Your task to perform on an android device: open app "Walmart Shopping & Grocery" (install if not already installed) and go to login screen Image 0: 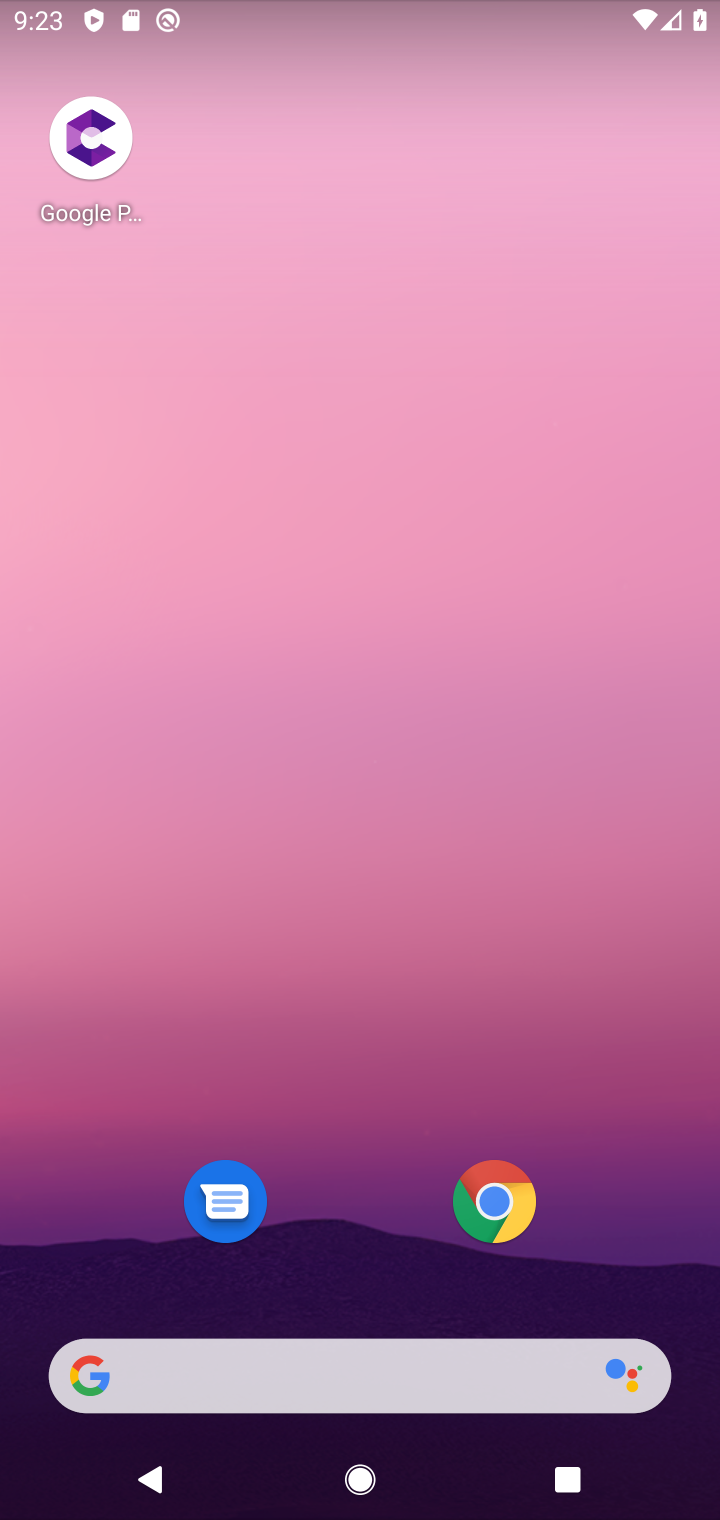
Step 0: drag from (276, 1257) to (498, 419)
Your task to perform on an android device: open app "Walmart Shopping & Grocery" (install if not already installed) and go to login screen Image 1: 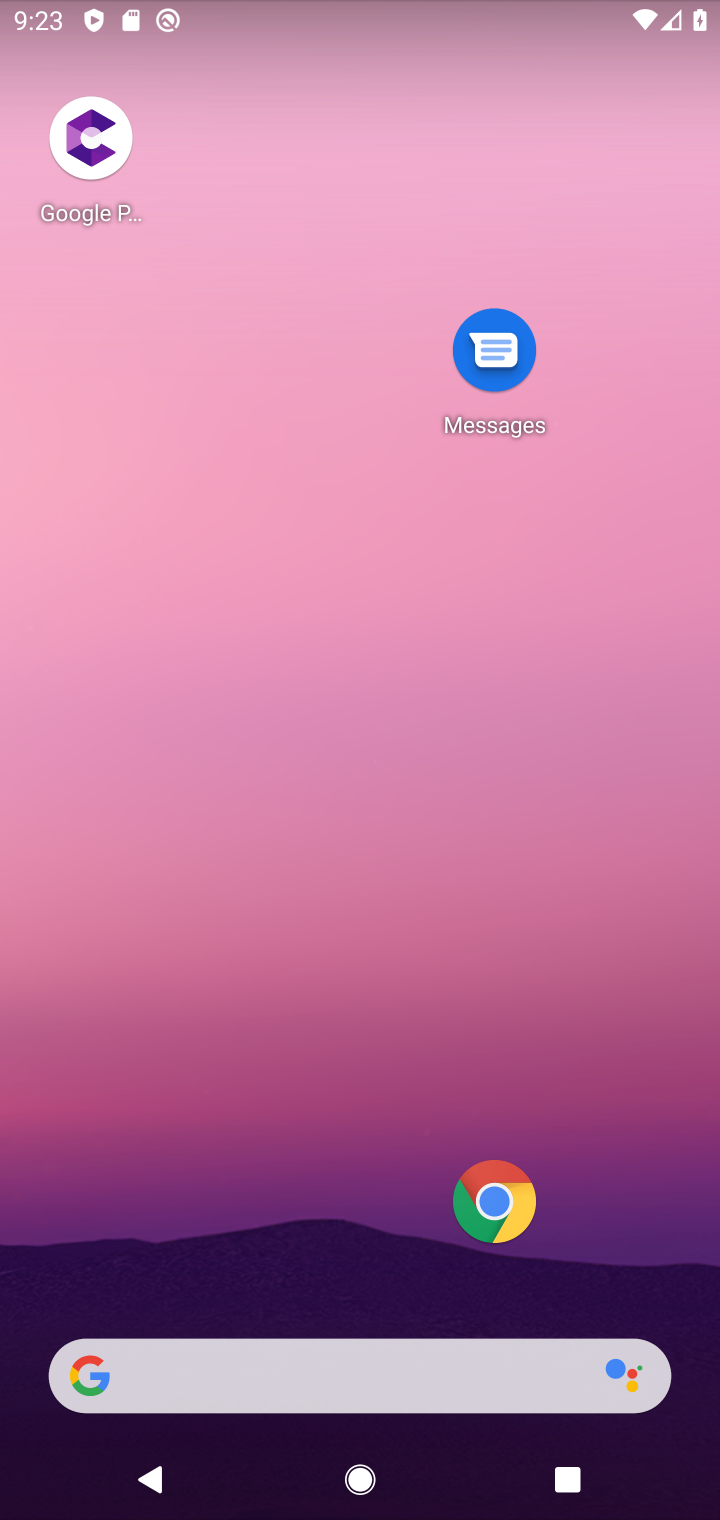
Step 1: drag from (368, 1068) to (360, 296)
Your task to perform on an android device: open app "Walmart Shopping & Grocery" (install if not already installed) and go to login screen Image 2: 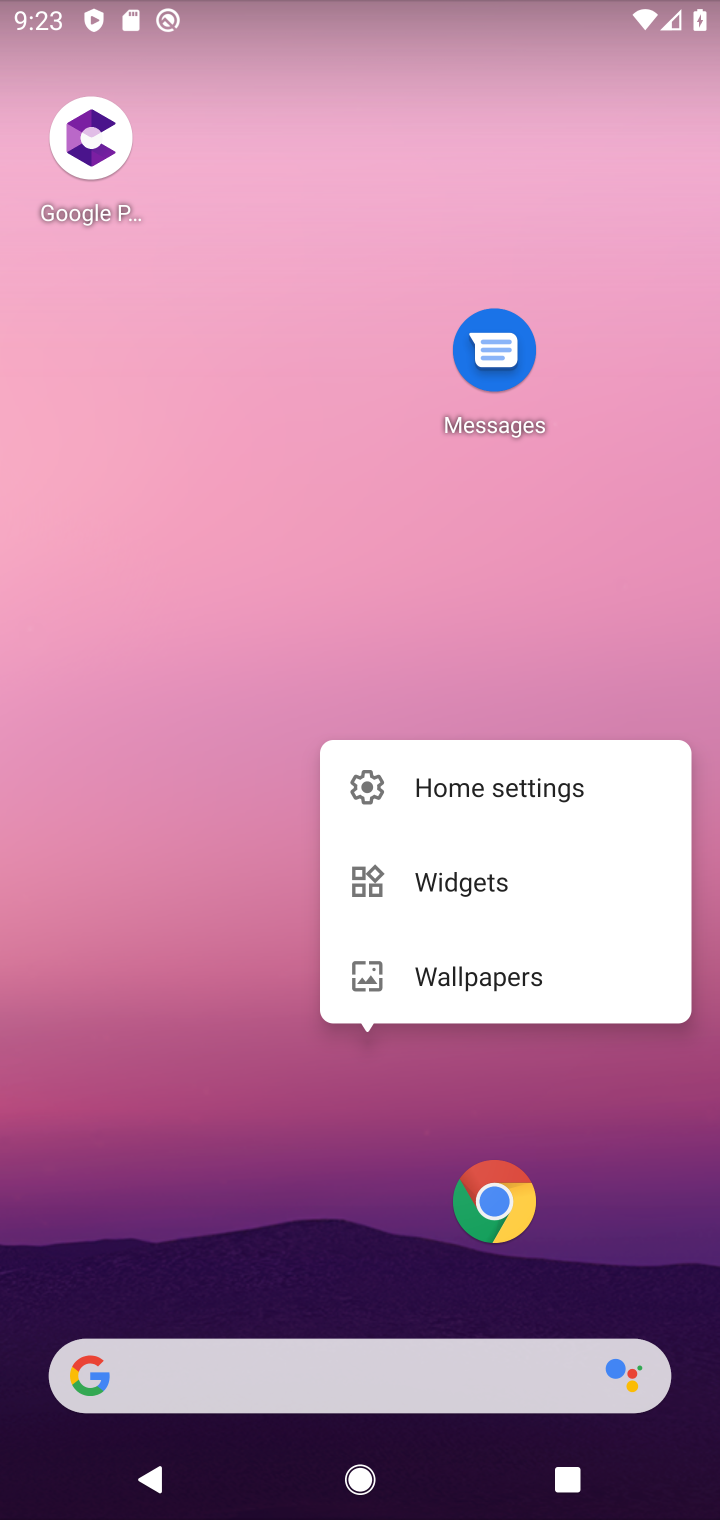
Step 2: click (168, 774)
Your task to perform on an android device: open app "Walmart Shopping & Grocery" (install if not already installed) and go to login screen Image 3: 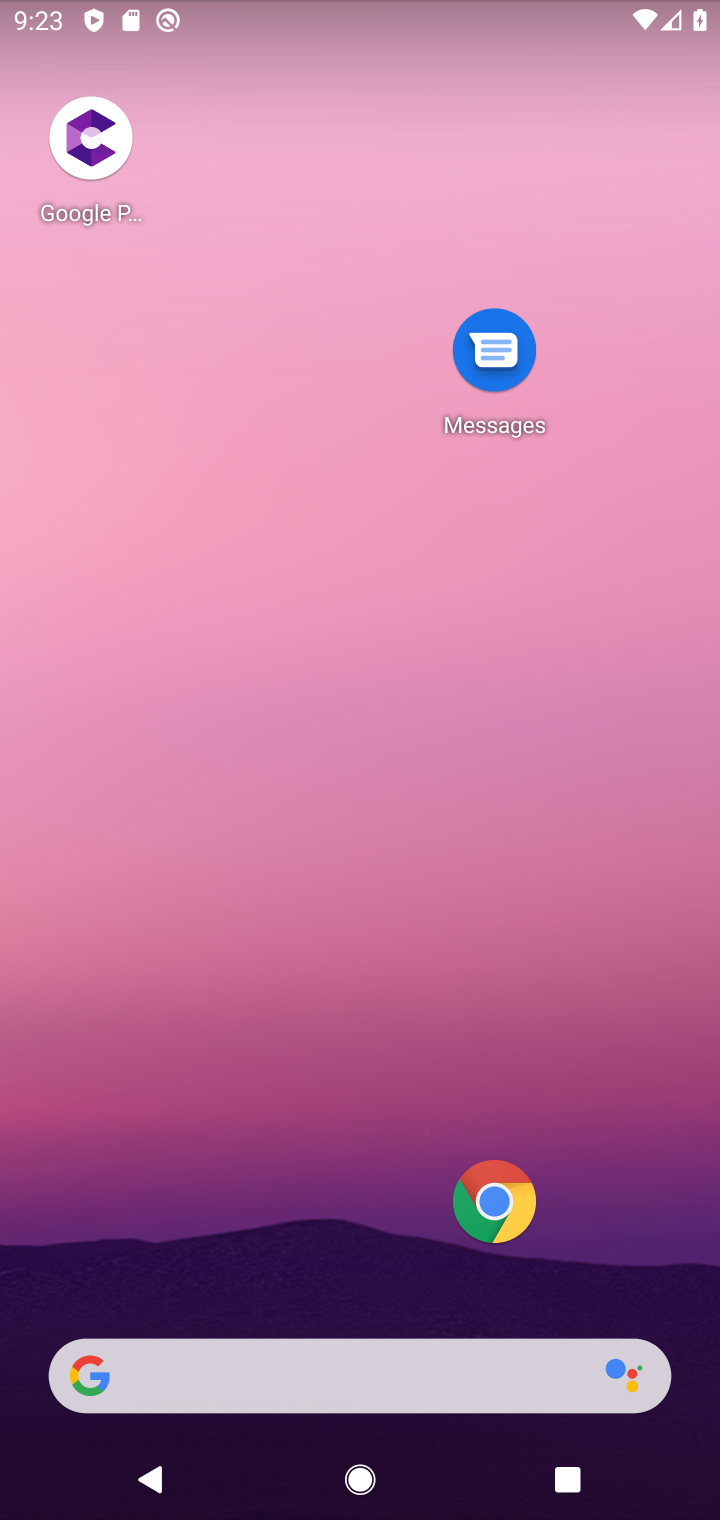
Step 3: drag from (215, 1135) to (416, 253)
Your task to perform on an android device: open app "Walmart Shopping & Grocery" (install if not already installed) and go to login screen Image 4: 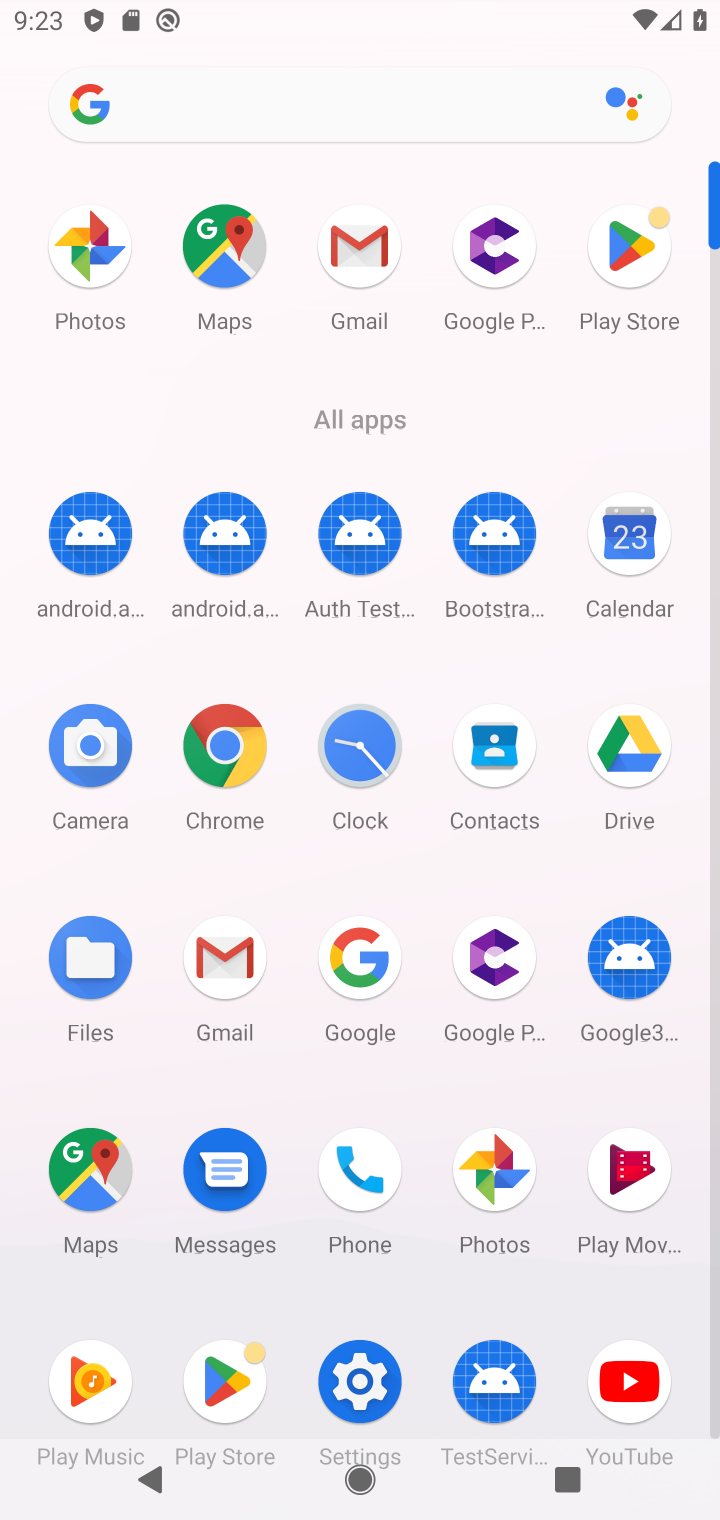
Step 4: click (607, 249)
Your task to perform on an android device: open app "Walmart Shopping & Grocery" (install if not already installed) and go to login screen Image 5: 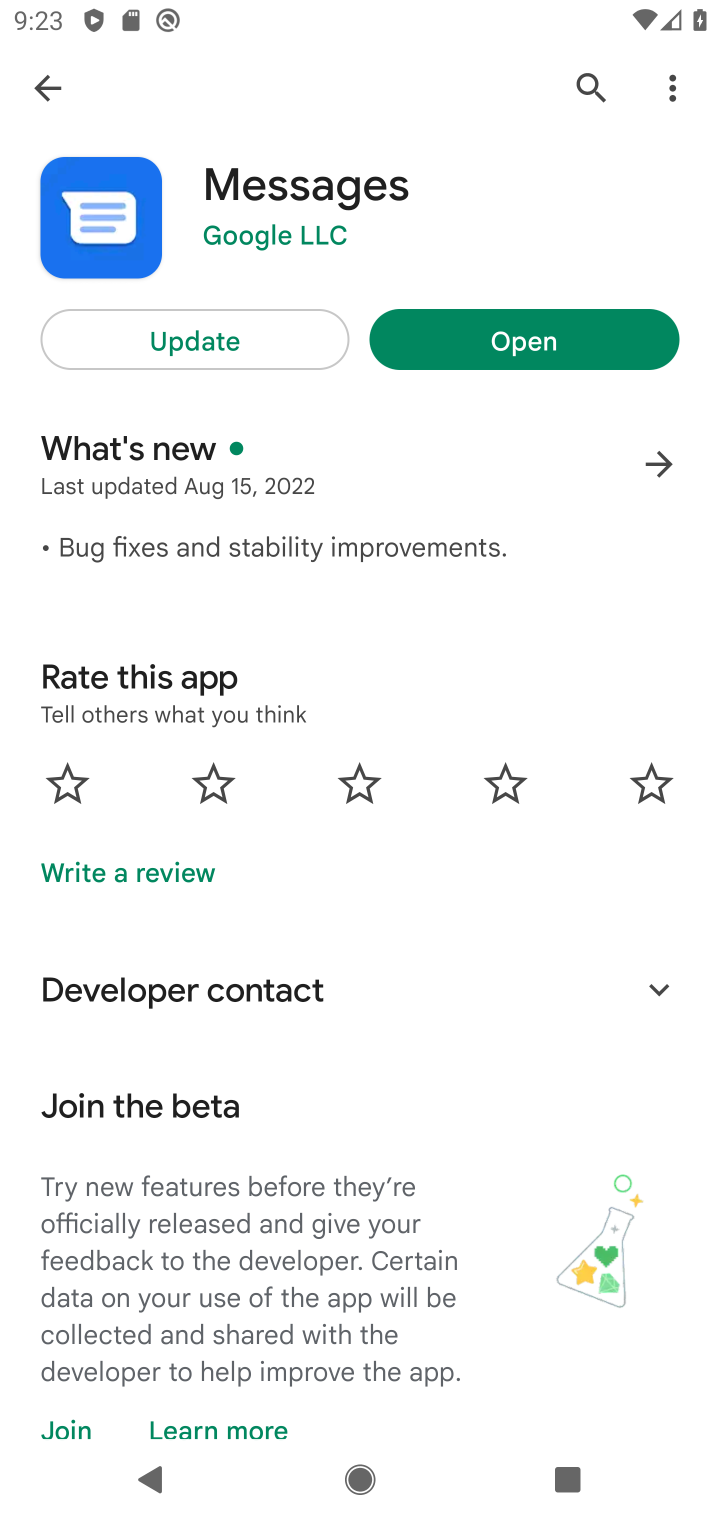
Step 5: click (53, 82)
Your task to perform on an android device: open app "Walmart Shopping & Grocery" (install if not already installed) and go to login screen Image 6: 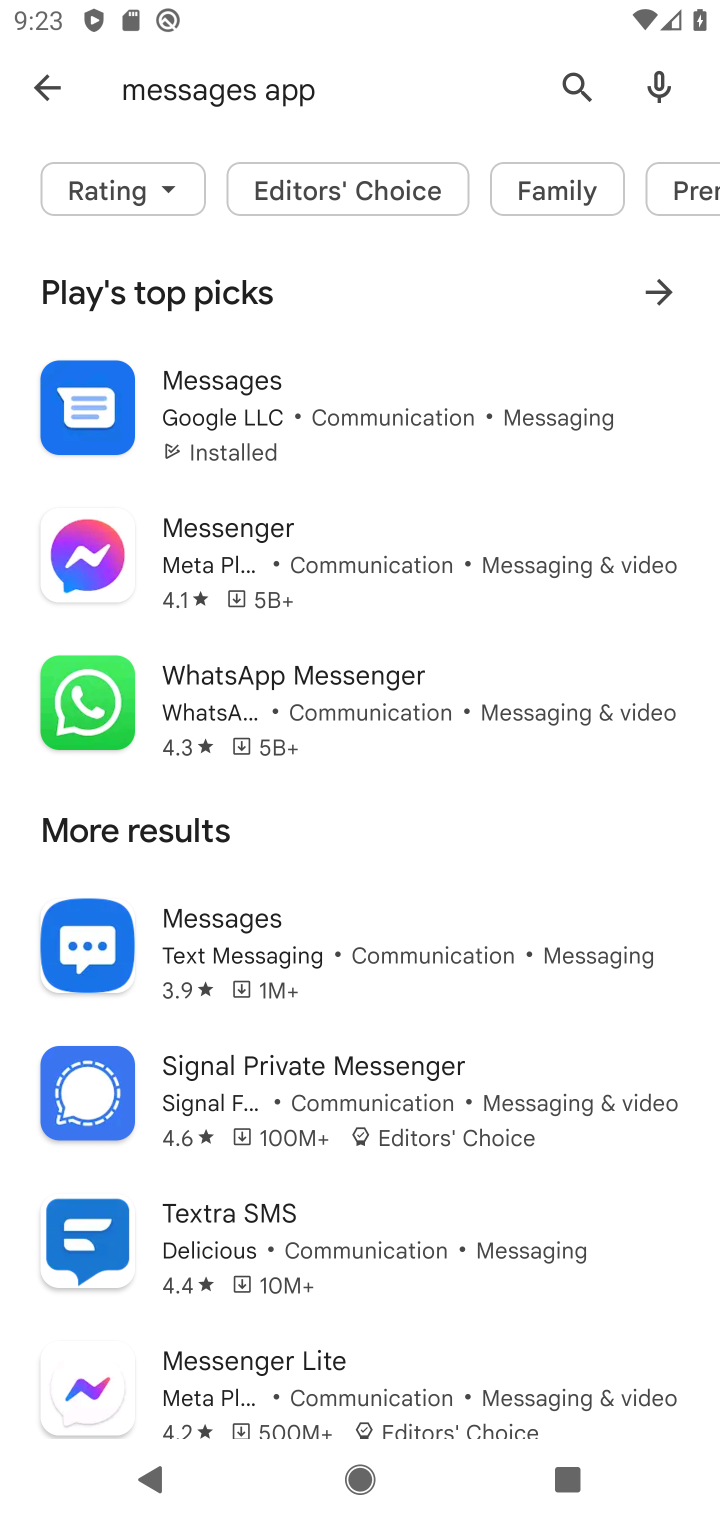
Step 6: click (587, 79)
Your task to perform on an android device: open app "Walmart Shopping & Grocery" (install if not already installed) and go to login screen Image 7: 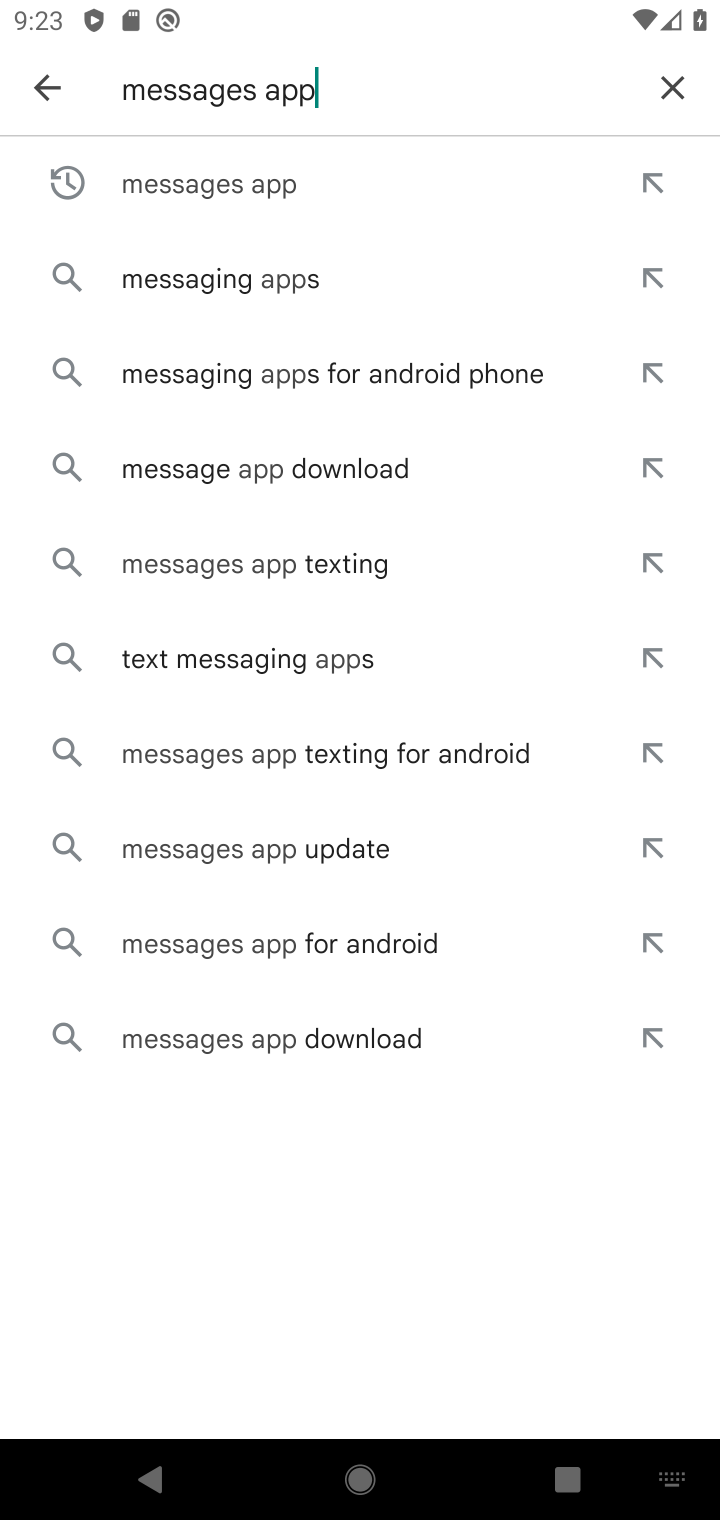
Step 7: click (656, 87)
Your task to perform on an android device: open app "Walmart Shopping & Grocery" (install if not already installed) and go to login screen Image 8: 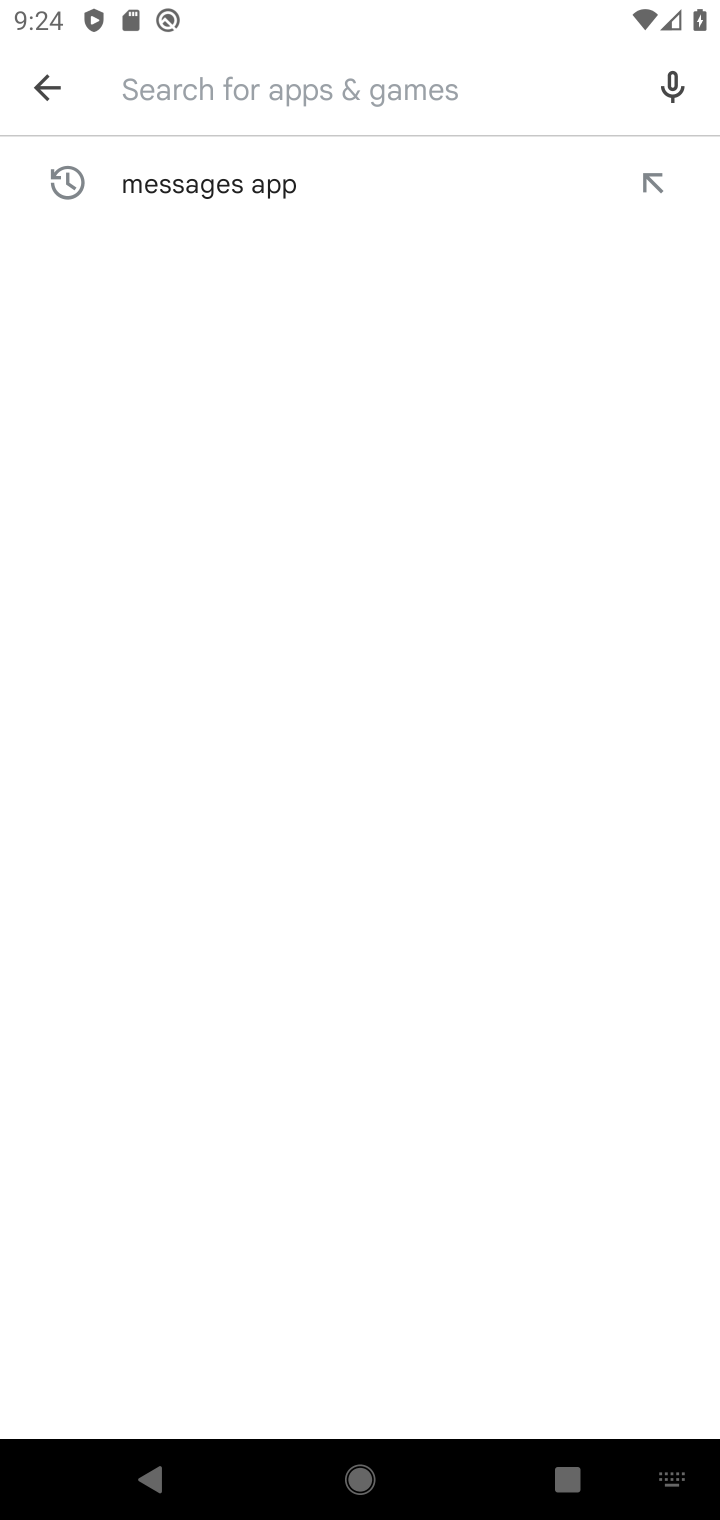
Step 8: click (350, 81)
Your task to perform on an android device: open app "Walmart Shopping & Grocery" (install if not already installed) and go to login screen Image 9: 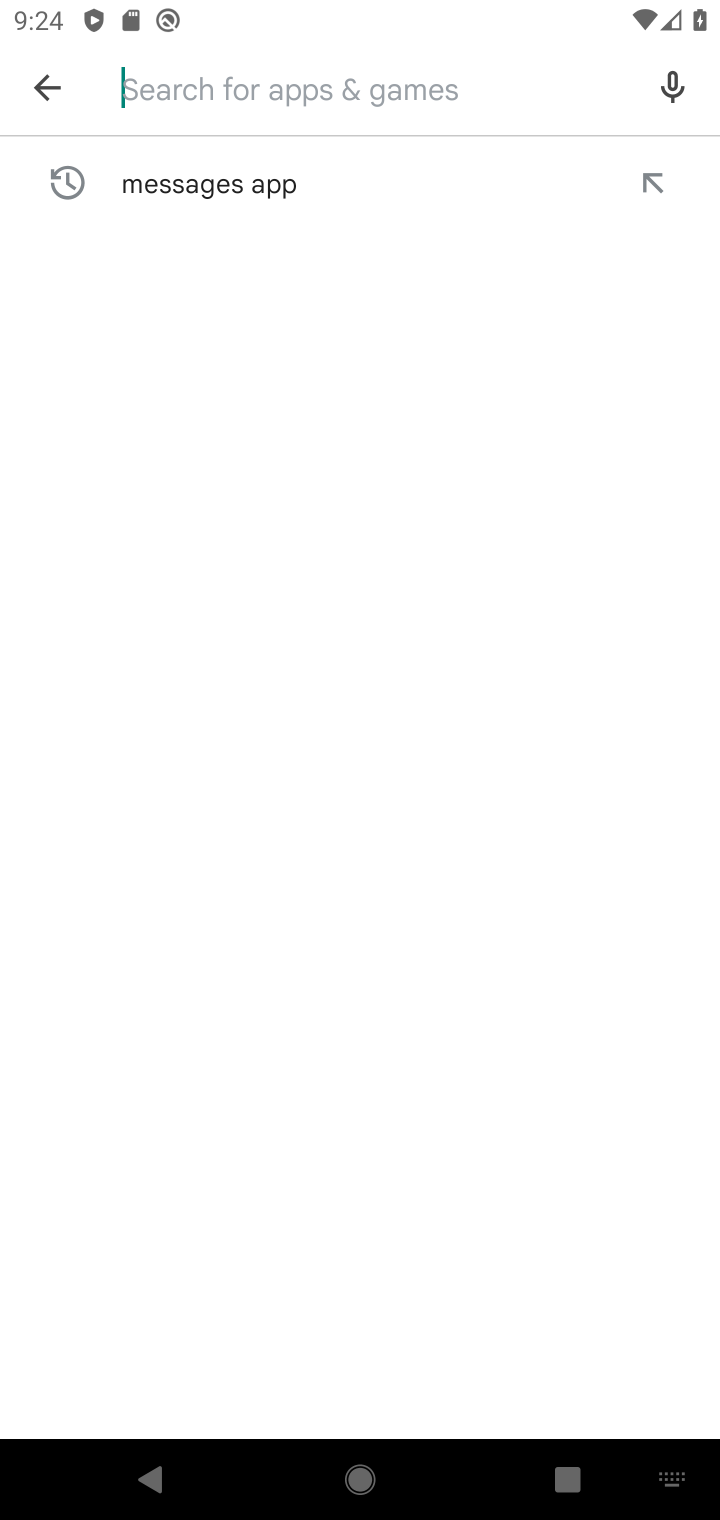
Step 9: type "Walmart Shopping & Grocery "
Your task to perform on an android device: open app "Walmart Shopping & Grocery" (install if not already installed) and go to login screen Image 10: 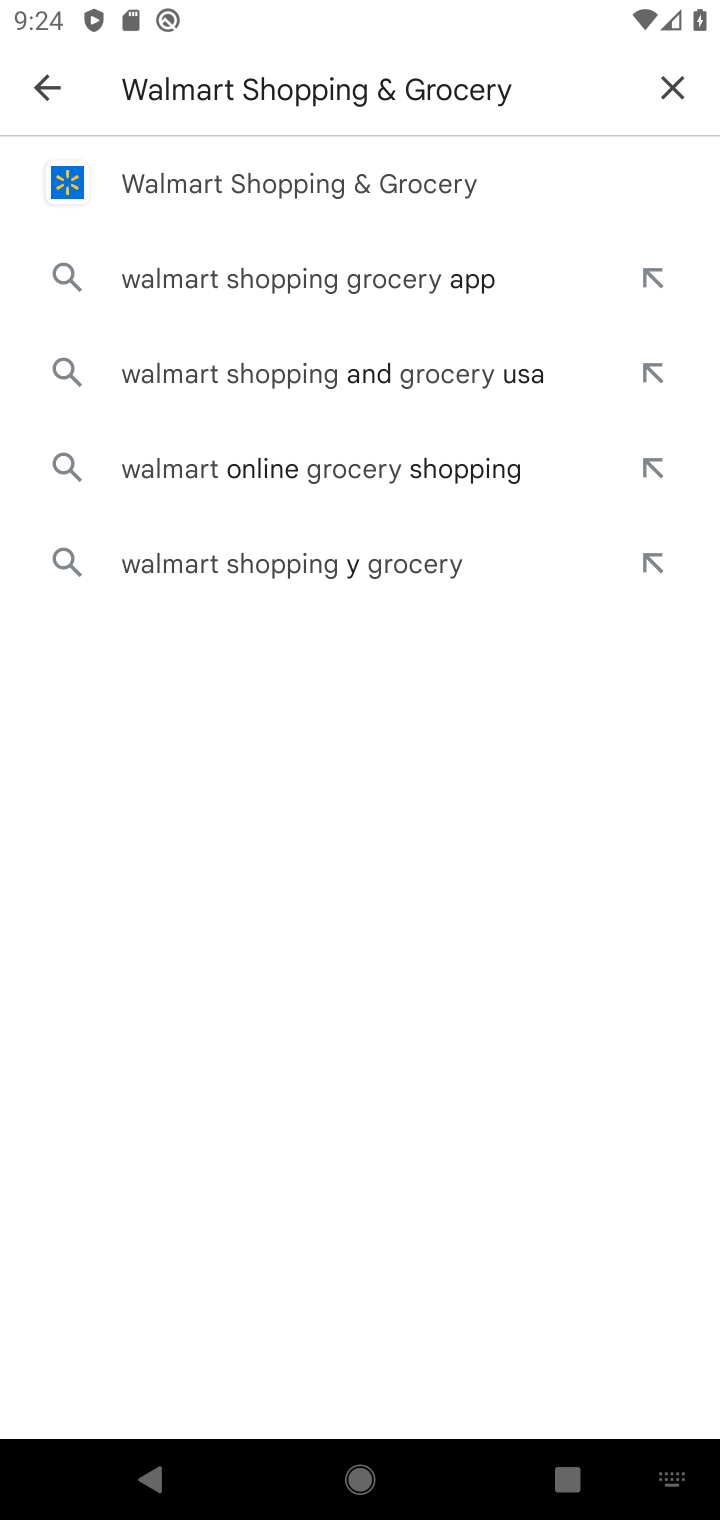
Step 10: click (232, 197)
Your task to perform on an android device: open app "Walmart Shopping & Grocery" (install if not already installed) and go to login screen Image 11: 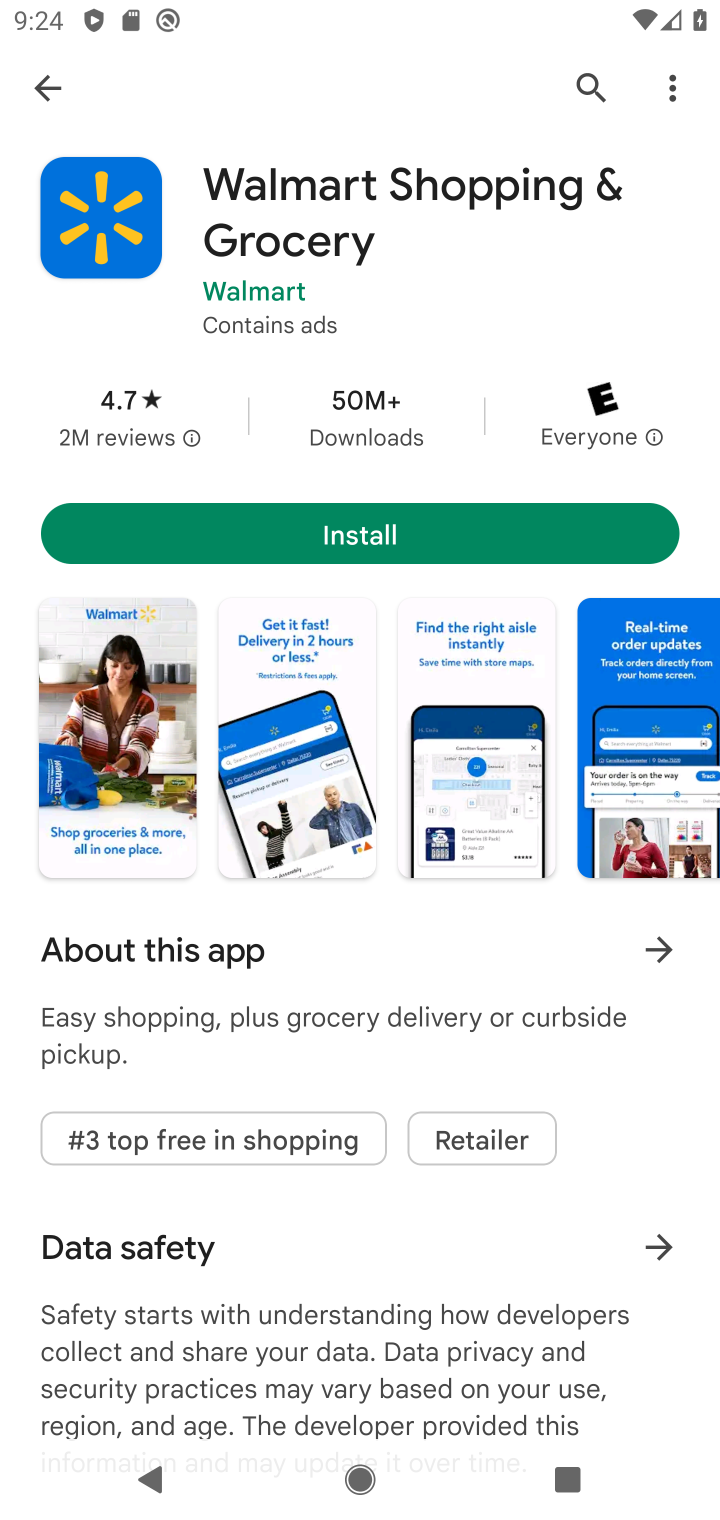
Step 11: click (311, 530)
Your task to perform on an android device: open app "Walmart Shopping & Grocery" (install if not already installed) and go to login screen Image 12: 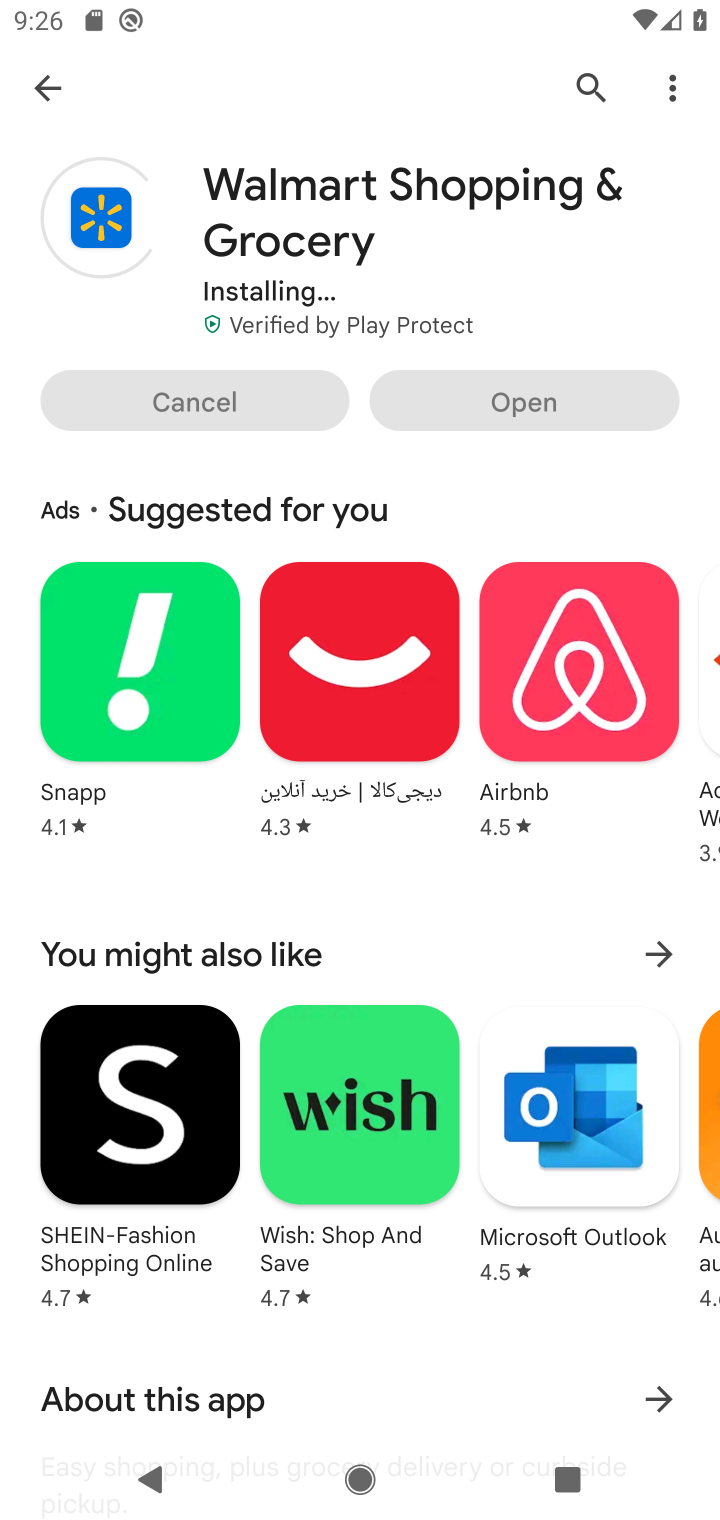
Step 12: task complete